Your task to perform on an android device: Open Wikipedia Image 0: 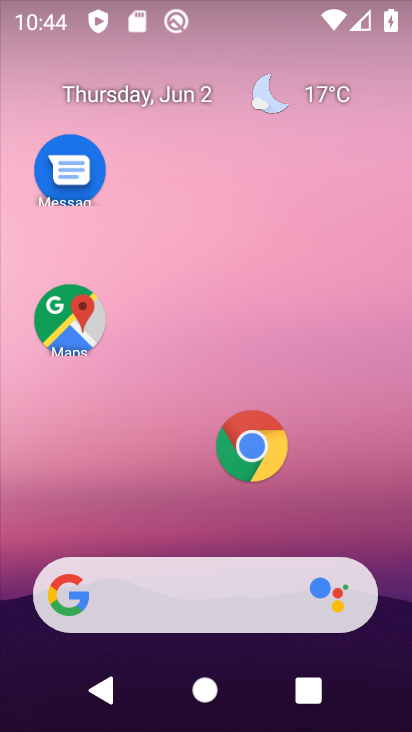
Step 0: press home button
Your task to perform on an android device: Open Wikipedia Image 1: 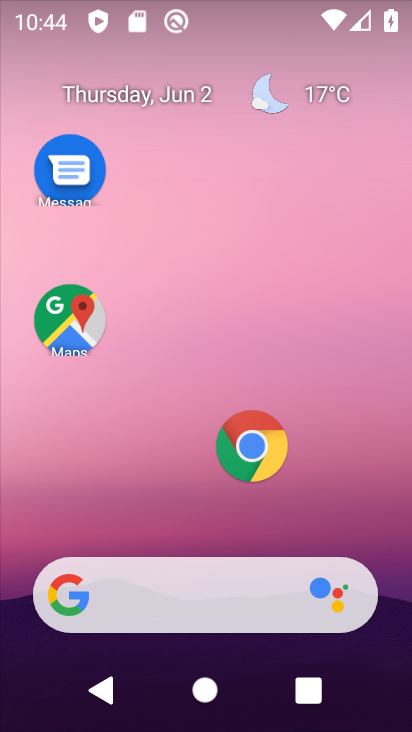
Step 1: click (359, 538)
Your task to perform on an android device: Open Wikipedia Image 2: 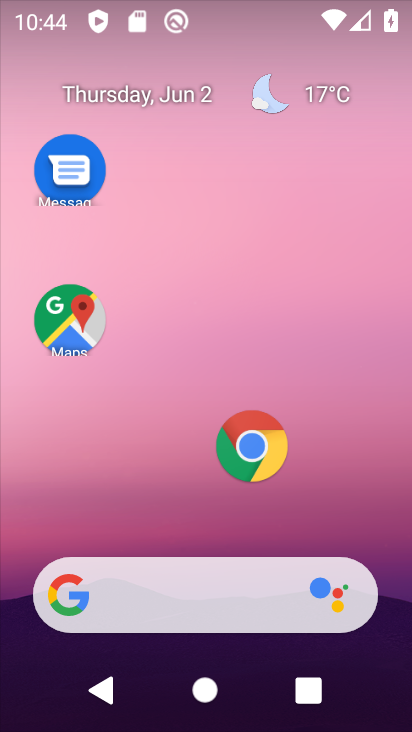
Step 2: click (242, 443)
Your task to perform on an android device: Open Wikipedia Image 3: 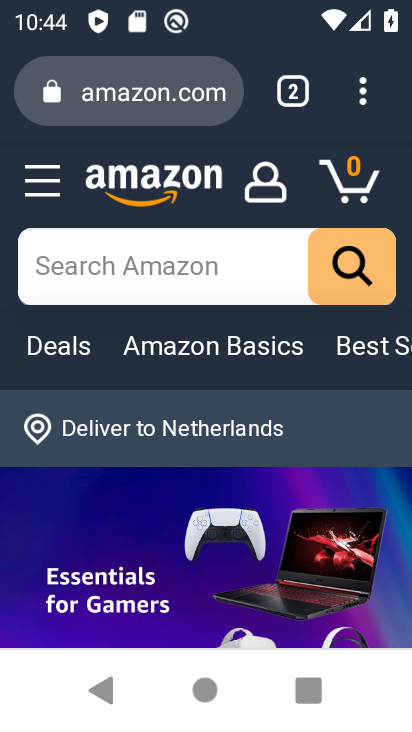
Step 3: drag from (359, 99) to (264, 177)
Your task to perform on an android device: Open Wikipedia Image 4: 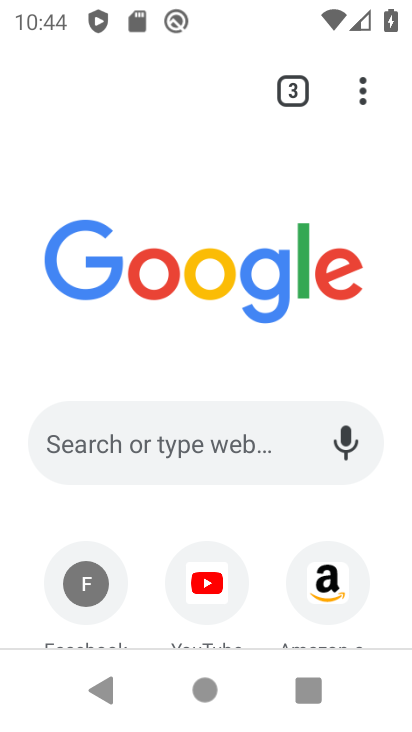
Step 4: drag from (240, 468) to (229, 28)
Your task to perform on an android device: Open Wikipedia Image 5: 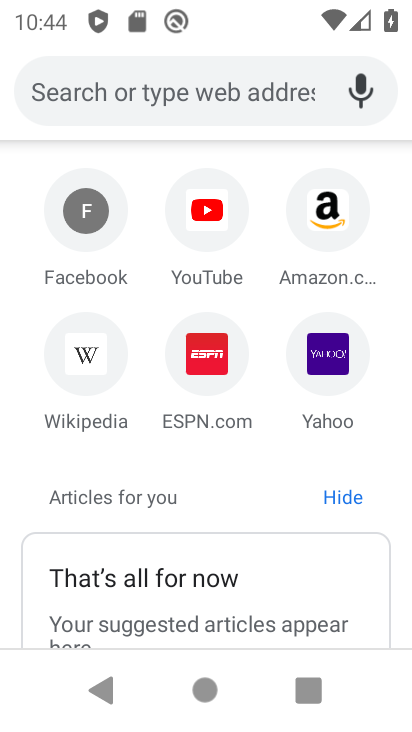
Step 5: click (101, 359)
Your task to perform on an android device: Open Wikipedia Image 6: 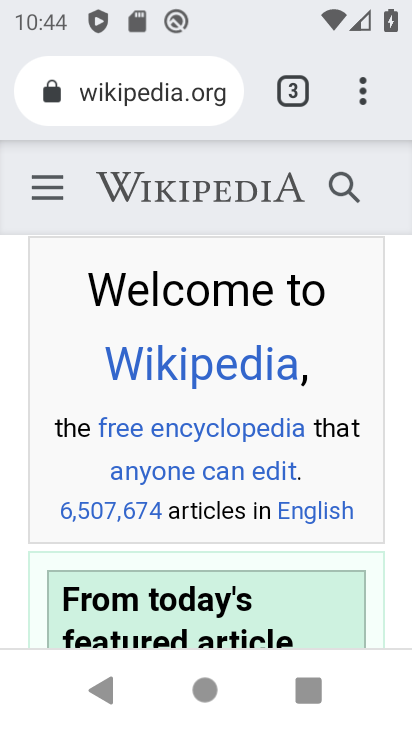
Step 6: task complete